Your task to perform on an android device: Open location settings Image 0: 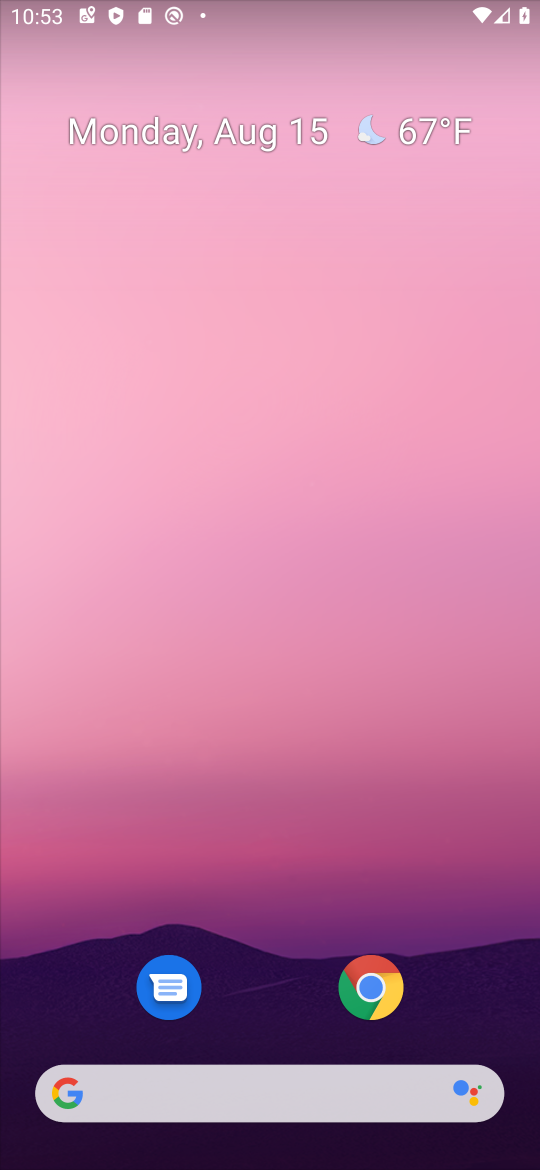
Step 0: drag from (307, 1061) to (496, 310)
Your task to perform on an android device: Open location settings Image 1: 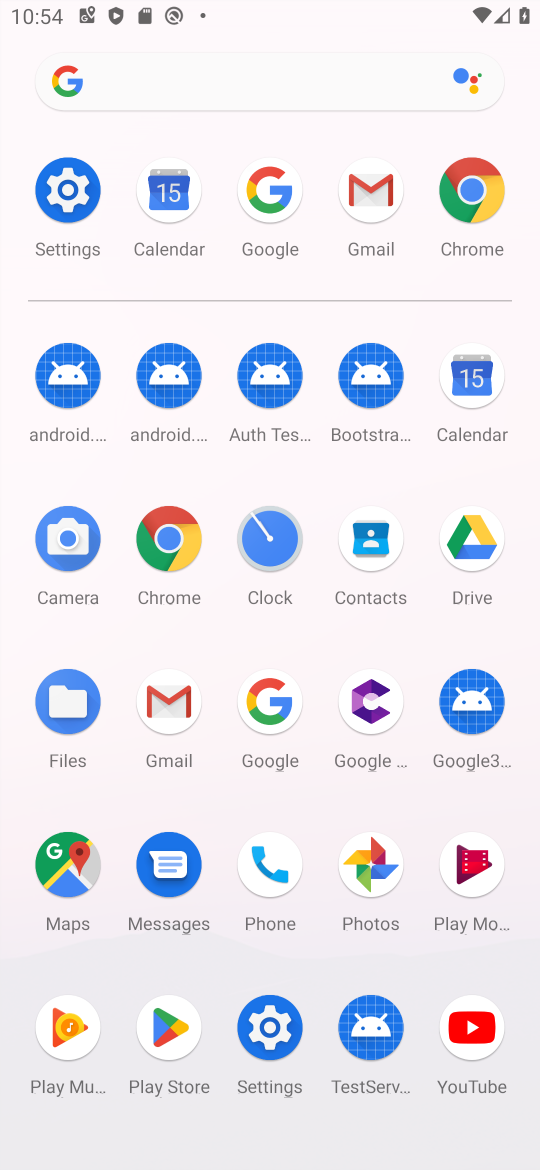
Step 1: click (265, 1016)
Your task to perform on an android device: Open location settings Image 2: 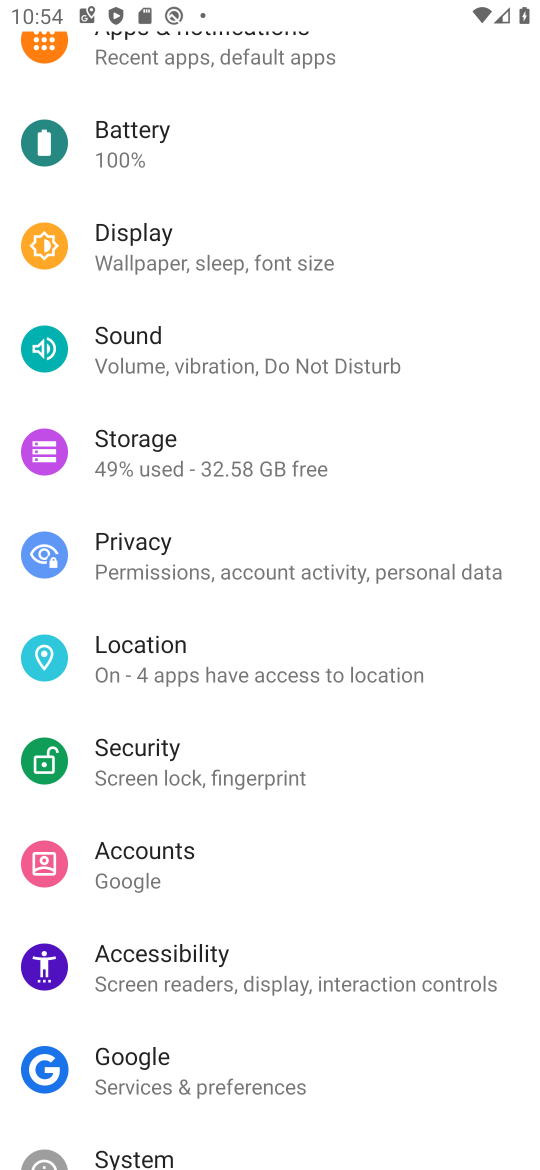
Step 2: click (223, 678)
Your task to perform on an android device: Open location settings Image 3: 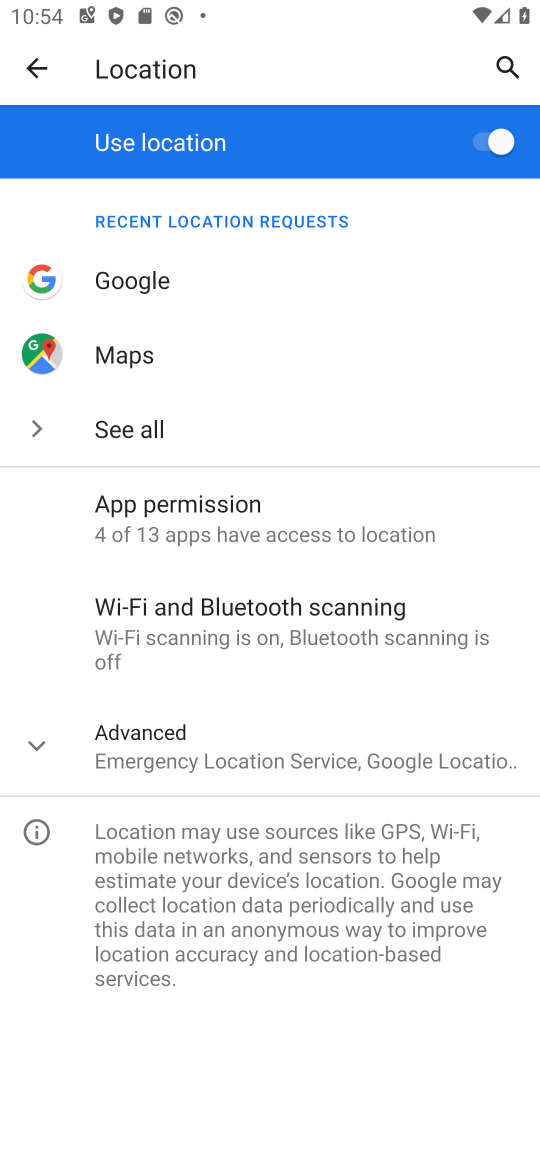
Step 3: click (181, 757)
Your task to perform on an android device: Open location settings Image 4: 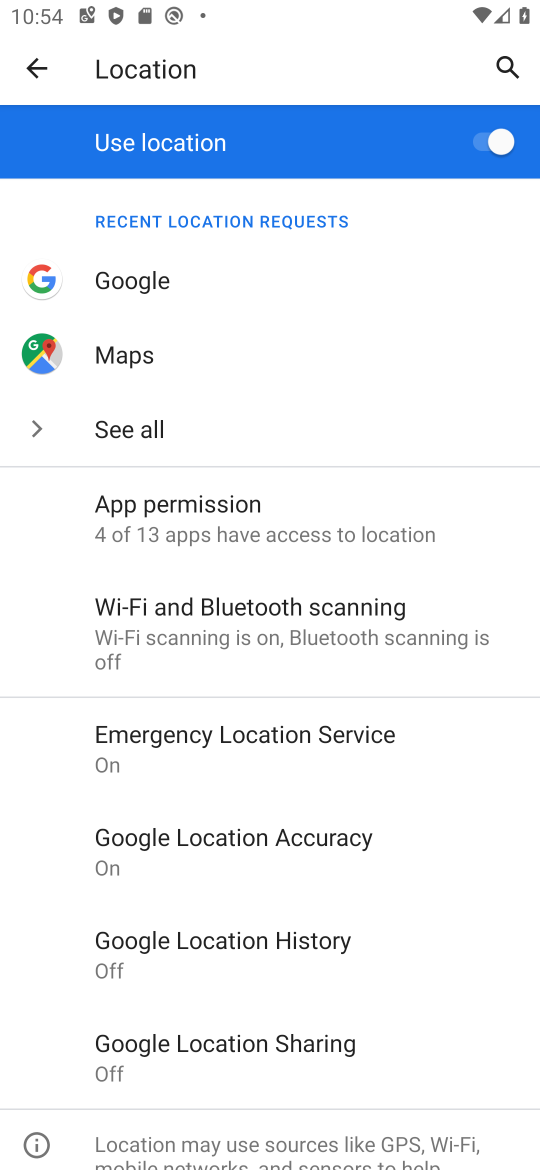
Step 4: task complete